Your task to perform on an android device: Open ESPN.com Image 0: 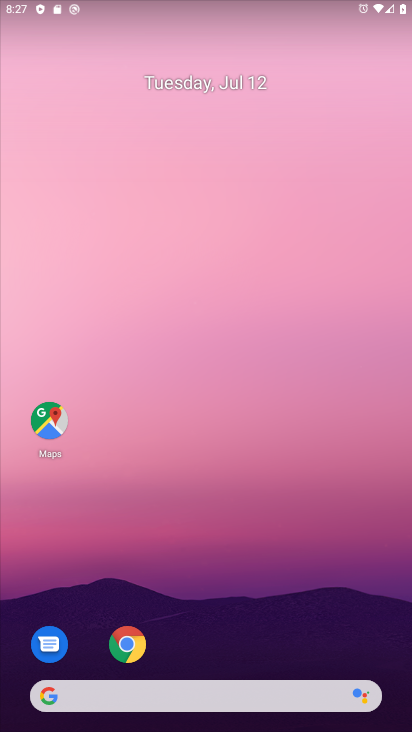
Step 0: drag from (37, 700) to (225, 329)
Your task to perform on an android device: Open ESPN.com Image 1: 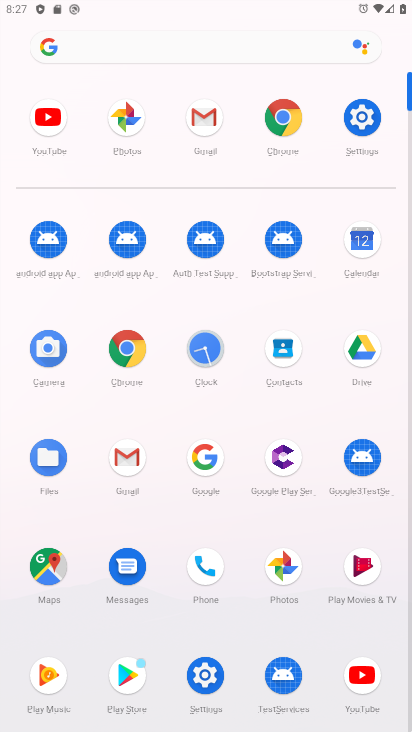
Step 1: click (86, 46)
Your task to perform on an android device: Open ESPN.com Image 2: 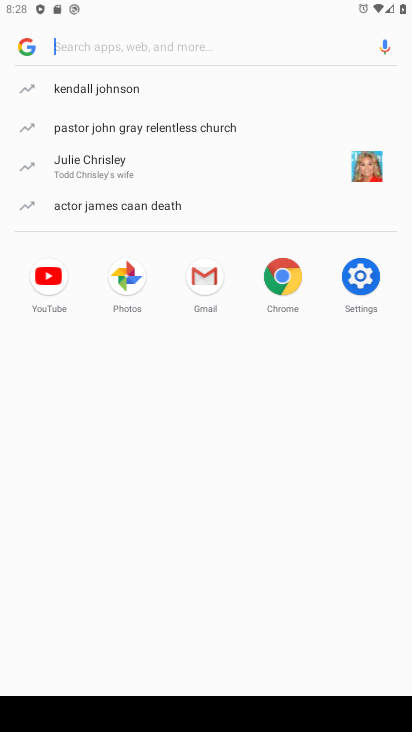
Step 2: type "ESPN.com"
Your task to perform on an android device: Open ESPN.com Image 3: 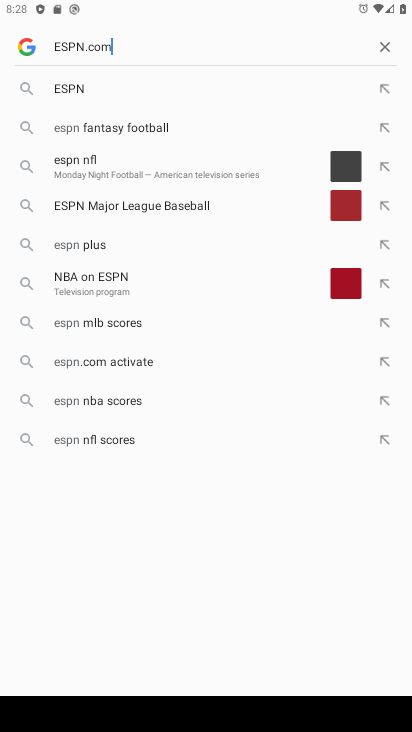
Step 3: type ""
Your task to perform on an android device: Open ESPN.com Image 4: 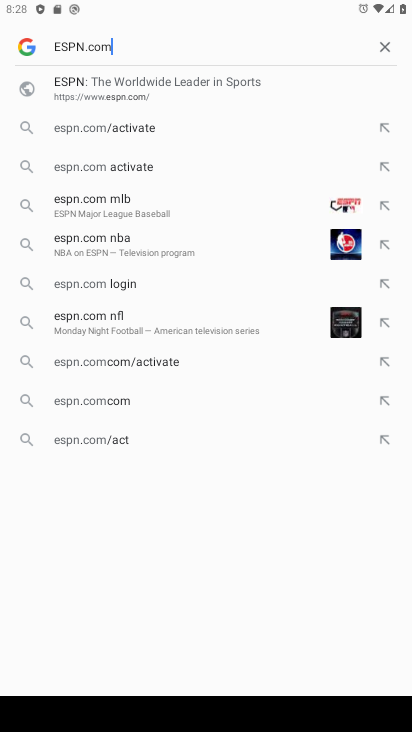
Step 4: type ""
Your task to perform on an android device: Open ESPN.com Image 5: 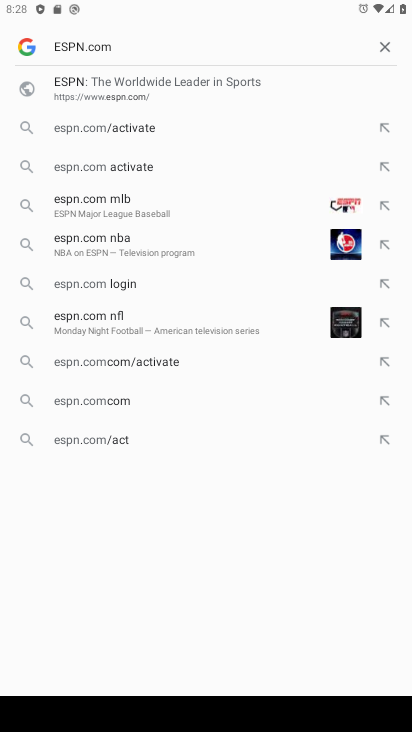
Step 5: type ""
Your task to perform on an android device: Open ESPN.com Image 6: 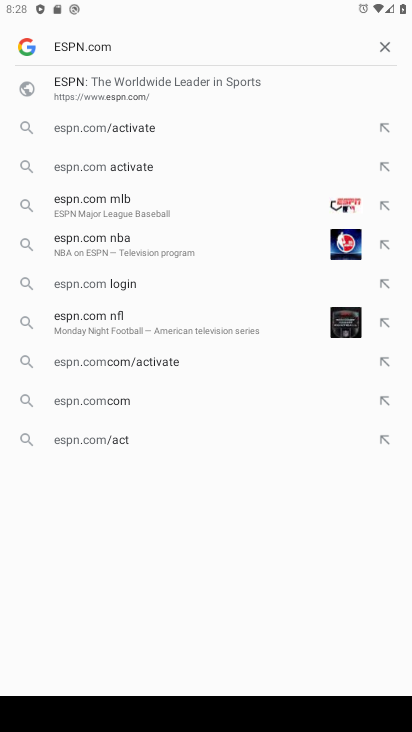
Step 6: task complete